Your task to perform on an android device: turn off smart reply in the gmail app Image 0: 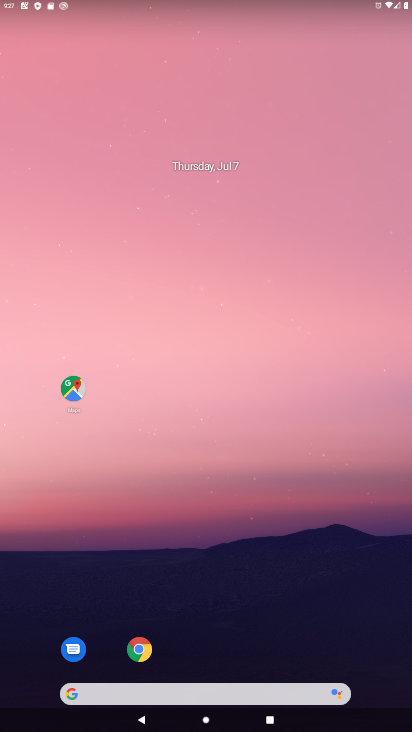
Step 0: drag from (267, 674) to (320, 11)
Your task to perform on an android device: turn off smart reply in the gmail app Image 1: 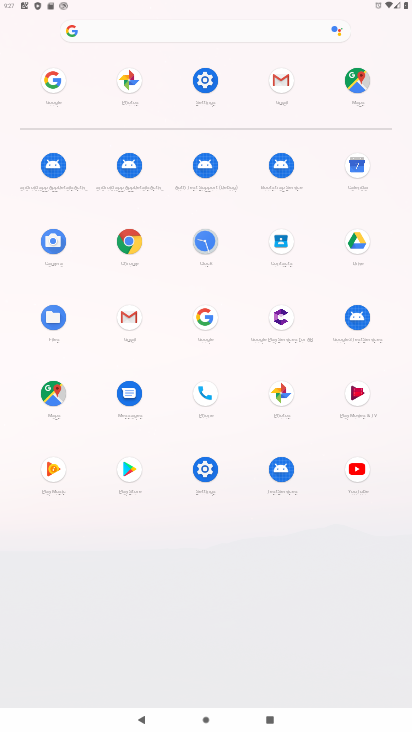
Step 1: click (127, 314)
Your task to perform on an android device: turn off smart reply in the gmail app Image 2: 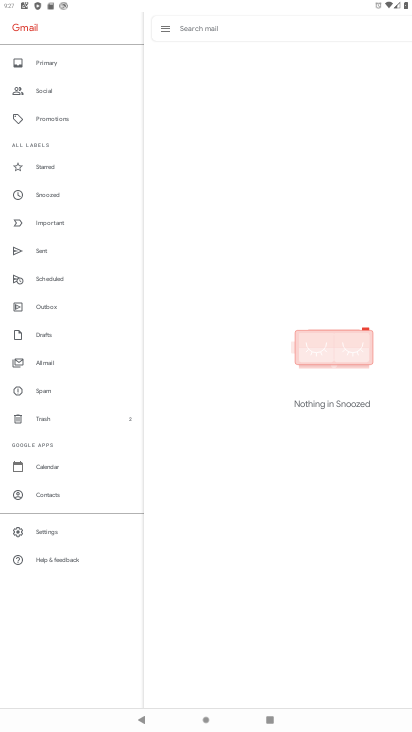
Step 2: click (53, 519)
Your task to perform on an android device: turn off smart reply in the gmail app Image 3: 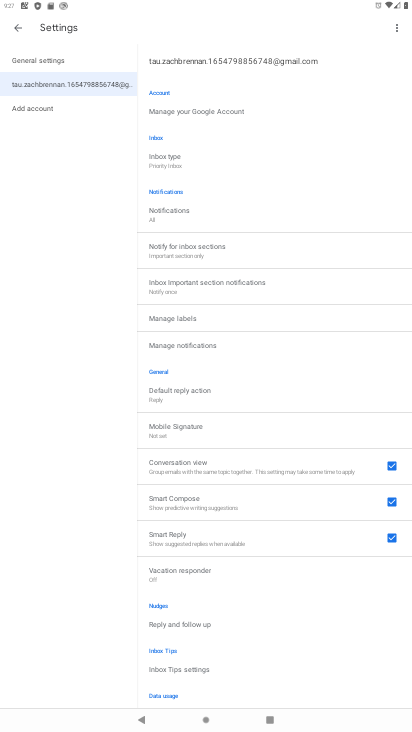
Step 3: click (202, 533)
Your task to perform on an android device: turn off smart reply in the gmail app Image 4: 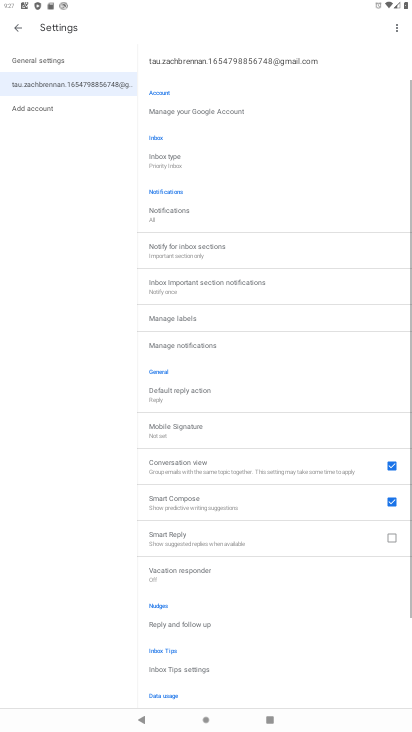
Step 4: task complete